Your task to perform on an android device: Go to Google maps Image 0: 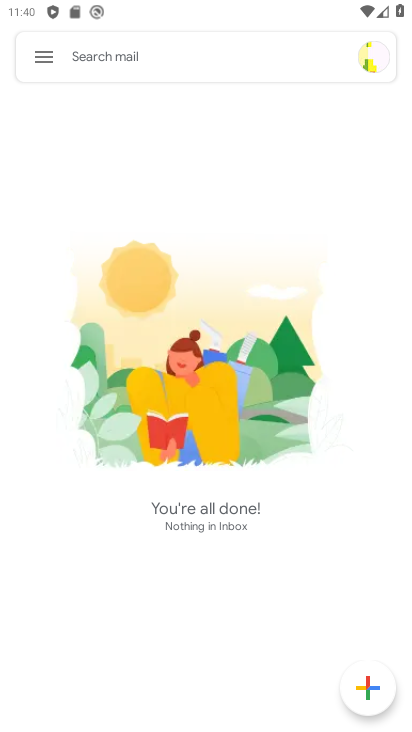
Step 0: press home button
Your task to perform on an android device: Go to Google maps Image 1: 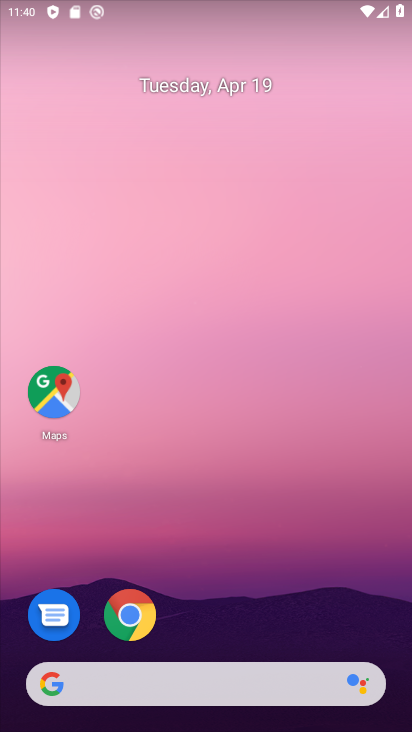
Step 1: click (52, 395)
Your task to perform on an android device: Go to Google maps Image 2: 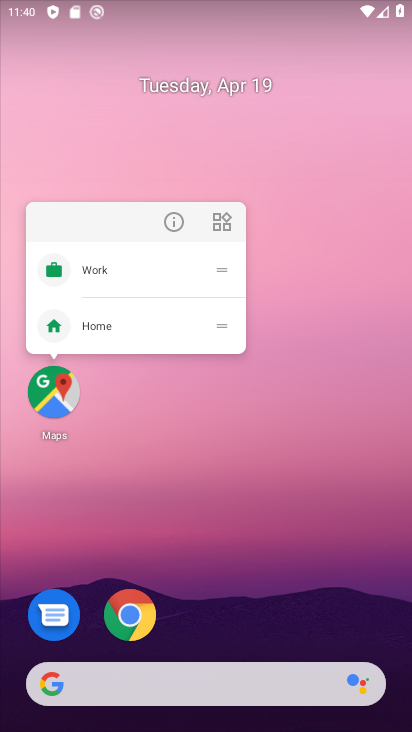
Step 2: click (212, 436)
Your task to perform on an android device: Go to Google maps Image 3: 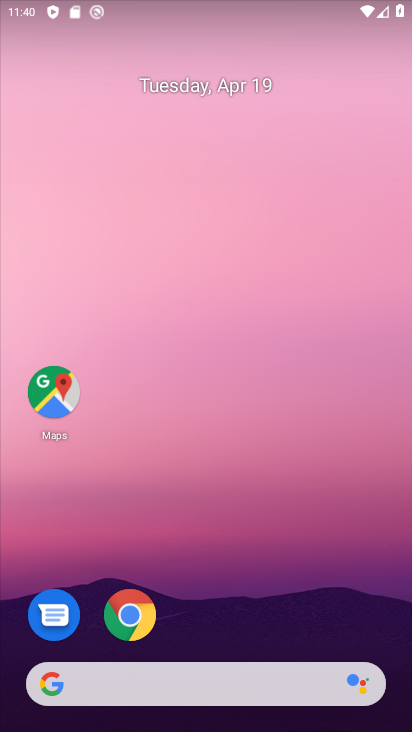
Step 3: click (53, 395)
Your task to perform on an android device: Go to Google maps Image 4: 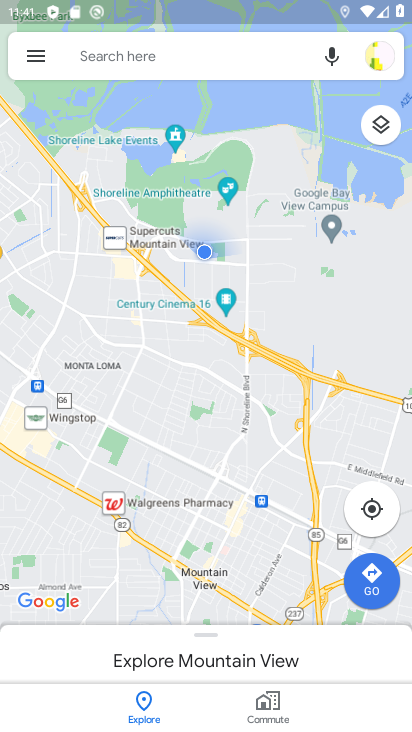
Step 4: task complete